Your task to perform on an android device: Open Android settings Image 0: 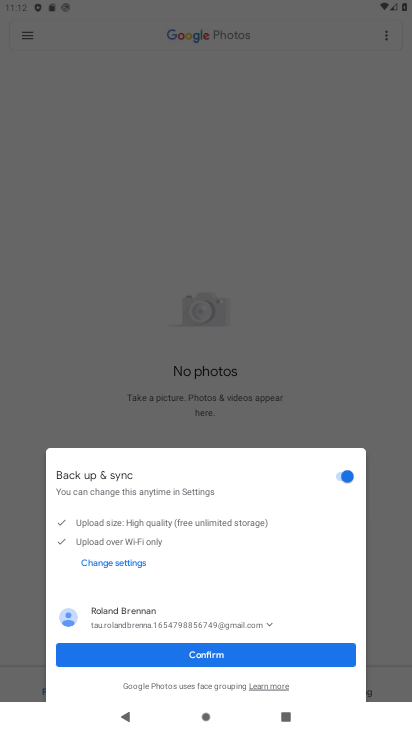
Step 0: press home button
Your task to perform on an android device: Open Android settings Image 1: 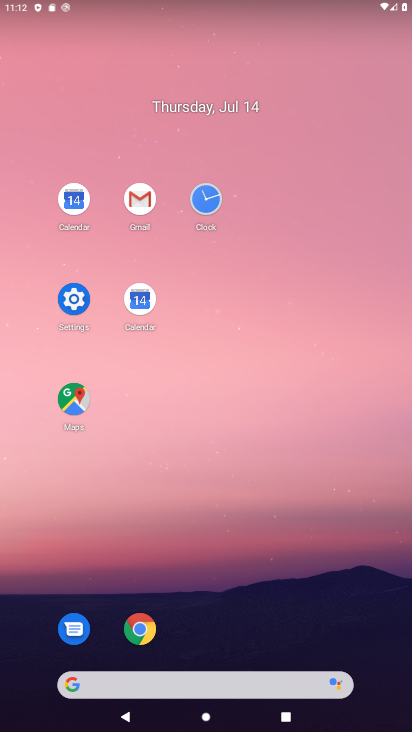
Step 1: click (75, 304)
Your task to perform on an android device: Open Android settings Image 2: 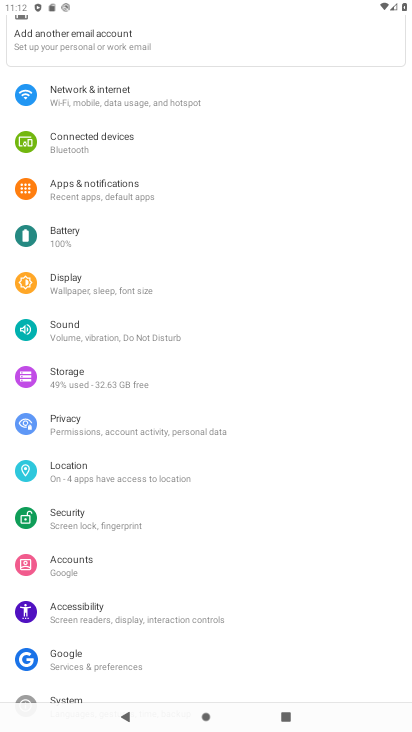
Step 2: task complete